Your task to perform on an android device: turn on notifications settings in the gmail app Image 0: 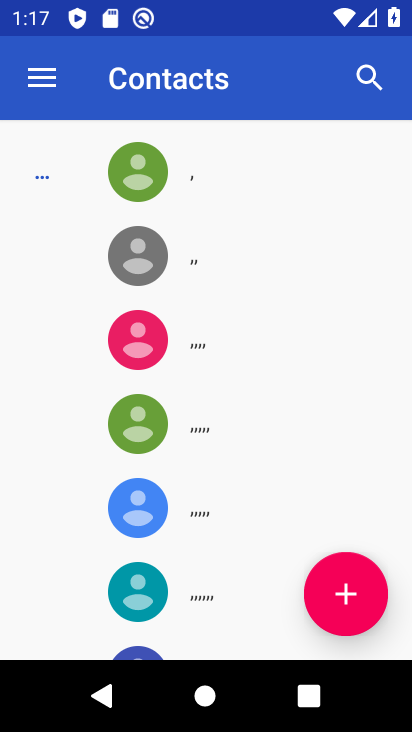
Step 0: press home button
Your task to perform on an android device: turn on notifications settings in the gmail app Image 1: 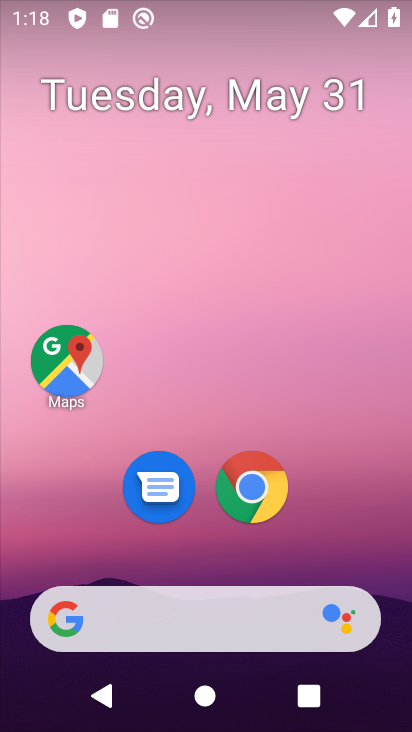
Step 1: drag from (75, 556) to (166, 123)
Your task to perform on an android device: turn on notifications settings in the gmail app Image 2: 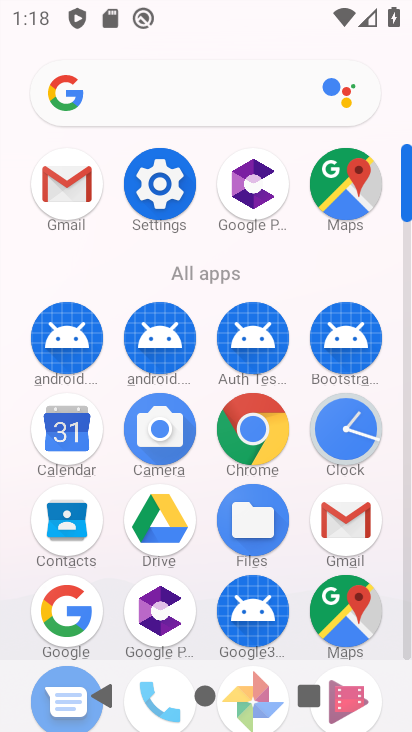
Step 2: click (357, 534)
Your task to perform on an android device: turn on notifications settings in the gmail app Image 3: 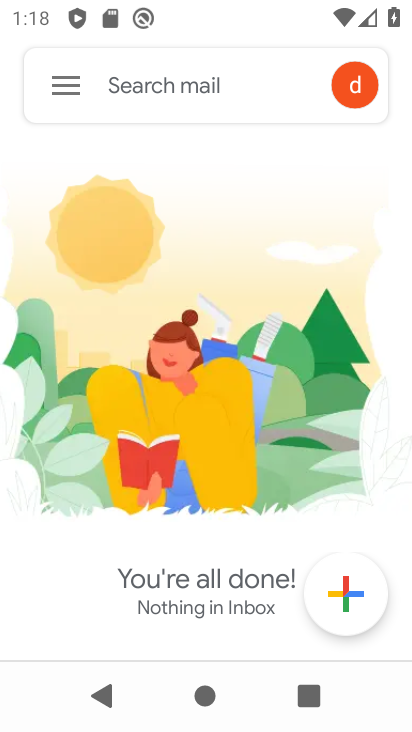
Step 3: click (87, 74)
Your task to perform on an android device: turn on notifications settings in the gmail app Image 4: 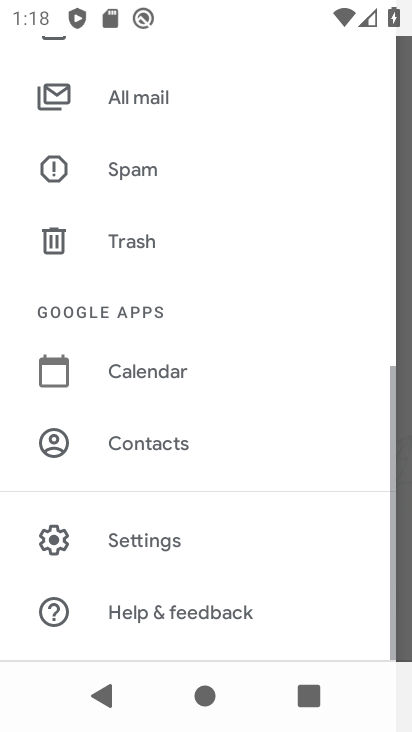
Step 4: drag from (165, 487) to (294, 98)
Your task to perform on an android device: turn on notifications settings in the gmail app Image 5: 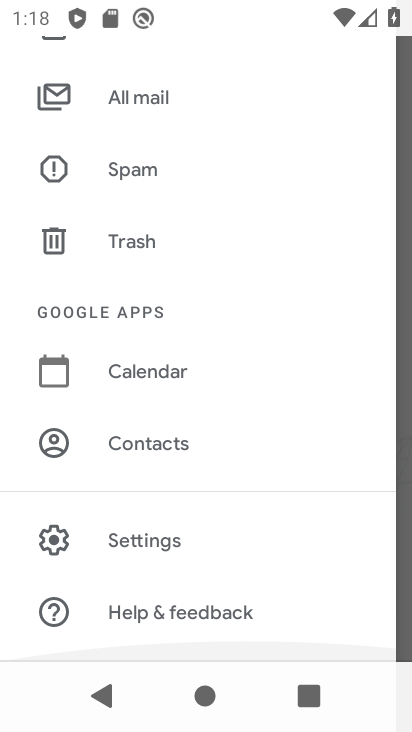
Step 5: click (269, 528)
Your task to perform on an android device: turn on notifications settings in the gmail app Image 6: 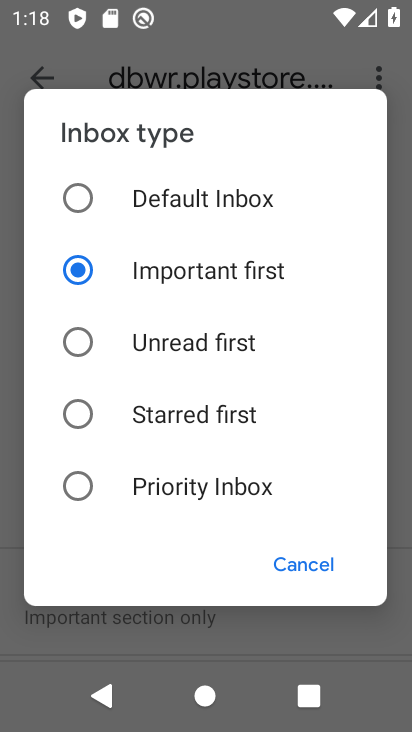
Step 6: press back button
Your task to perform on an android device: turn on notifications settings in the gmail app Image 7: 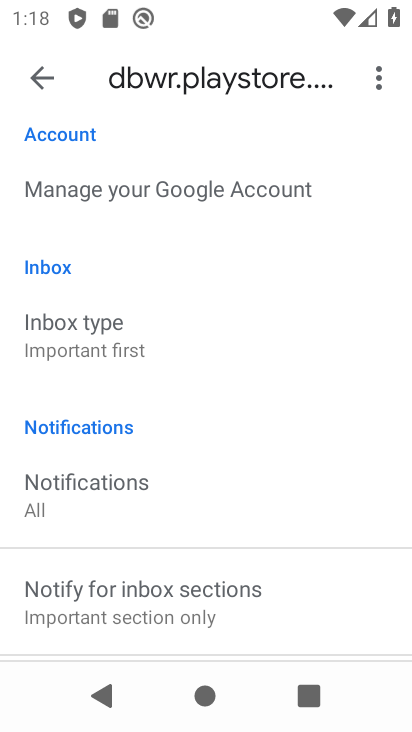
Step 7: drag from (204, 613) to (303, 151)
Your task to perform on an android device: turn on notifications settings in the gmail app Image 8: 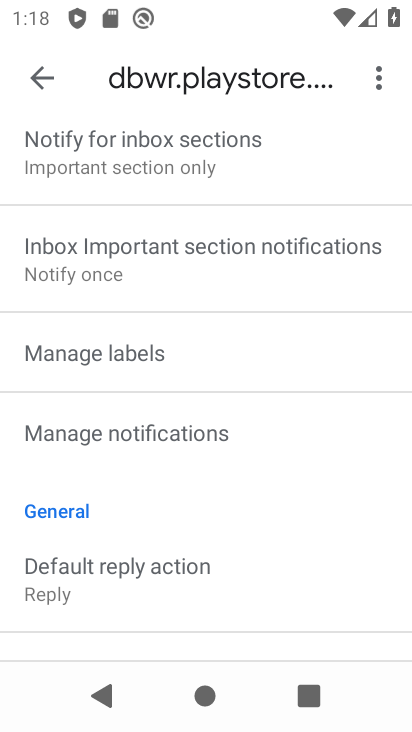
Step 8: click (226, 432)
Your task to perform on an android device: turn on notifications settings in the gmail app Image 9: 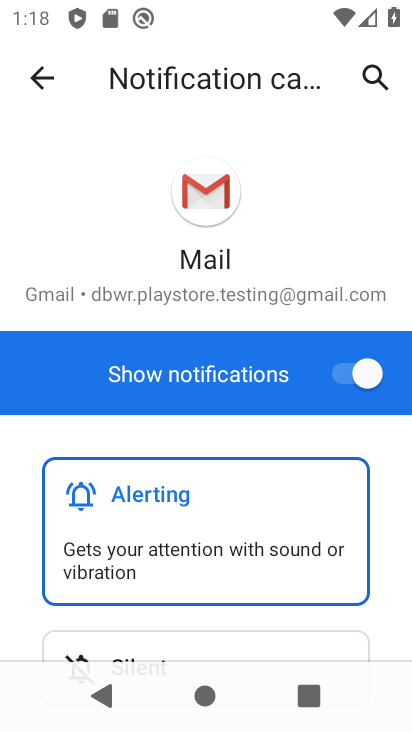
Step 9: task complete